Your task to perform on an android device: Open internet settings Image 0: 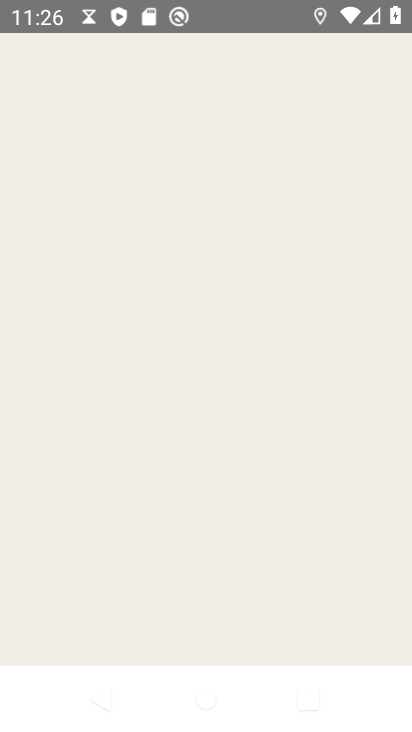
Step 0: press home button
Your task to perform on an android device: Open internet settings Image 1: 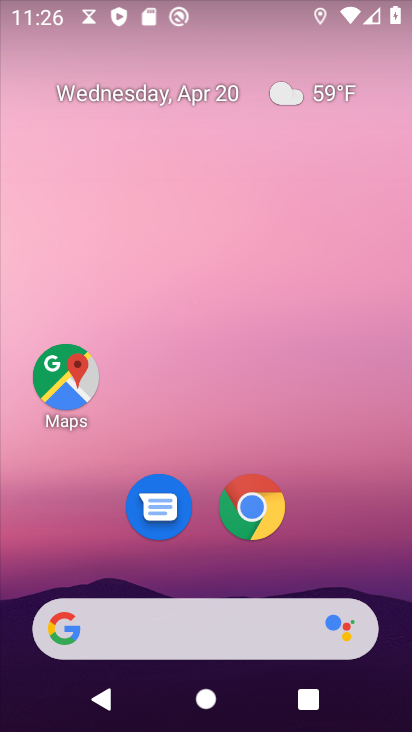
Step 1: drag from (251, 654) to (236, 295)
Your task to perform on an android device: Open internet settings Image 2: 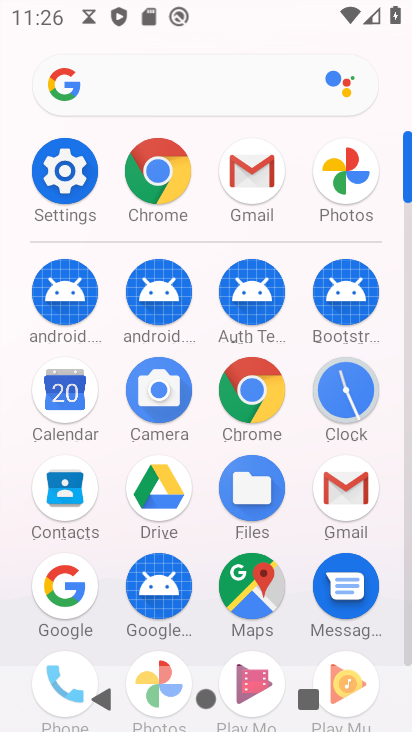
Step 2: click (80, 196)
Your task to perform on an android device: Open internet settings Image 3: 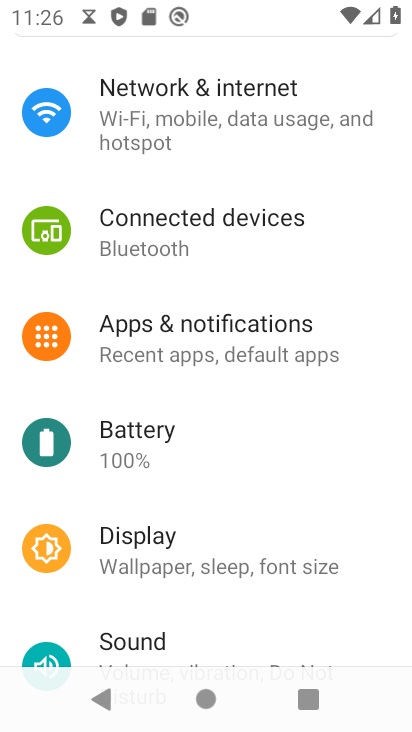
Step 3: click (159, 134)
Your task to perform on an android device: Open internet settings Image 4: 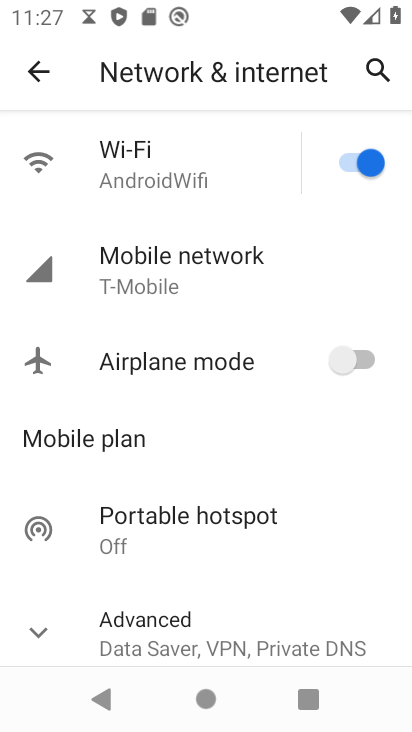
Step 4: task complete